Your task to perform on an android device: Search for sushi restaurants on Maps Image 0: 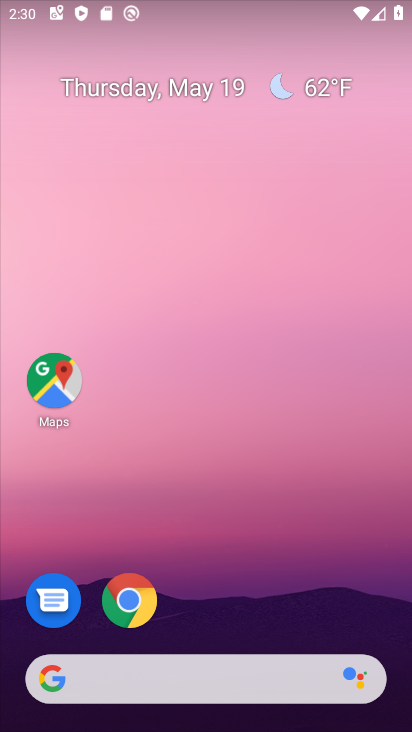
Step 0: click (67, 388)
Your task to perform on an android device: Search for sushi restaurants on Maps Image 1: 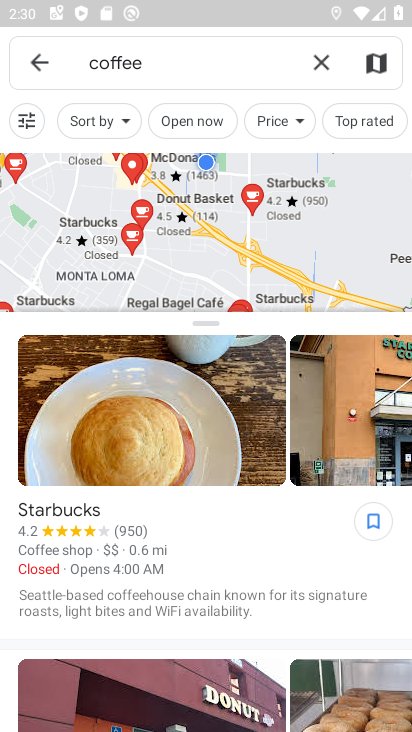
Step 1: click (328, 67)
Your task to perform on an android device: Search for sushi restaurants on Maps Image 2: 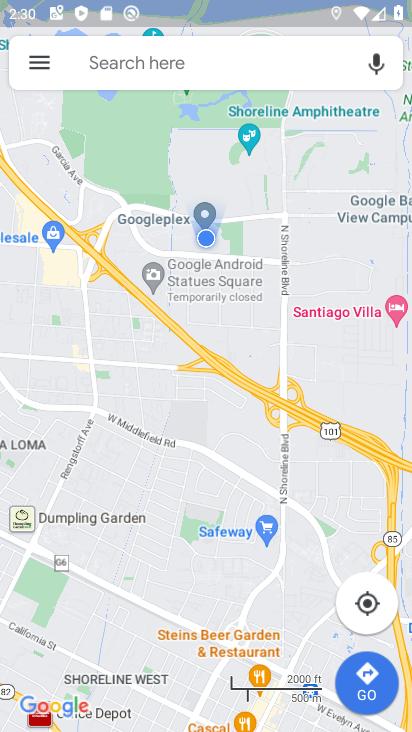
Step 2: click (163, 64)
Your task to perform on an android device: Search for sushi restaurants on Maps Image 3: 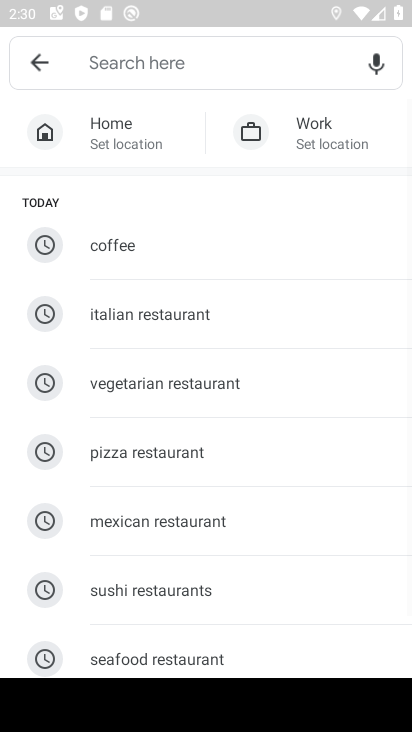
Step 3: click (129, 591)
Your task to perform on an android device: Search for sushi restaurants on Maps Image 4: 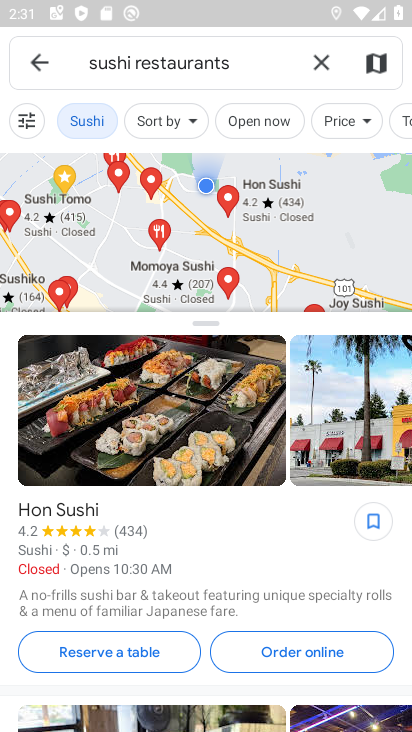
Step 4: task complete